Your task to perform on an android device: Show me the alarms in the clock app Image 0: 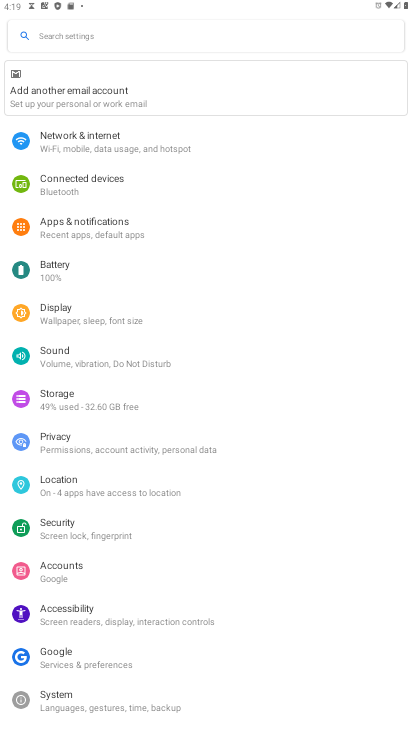
Step 0: press home button
Your task to perform on an android device: Show me the alarms in the clock app Image 1: 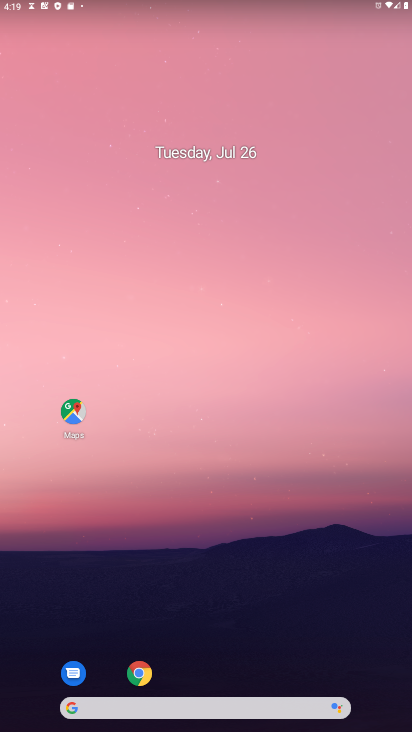
Step 1: drag from (191, 708) to (205, 146)
Your task to perform on an android device: Show me the alarms in the clock app Image 2: 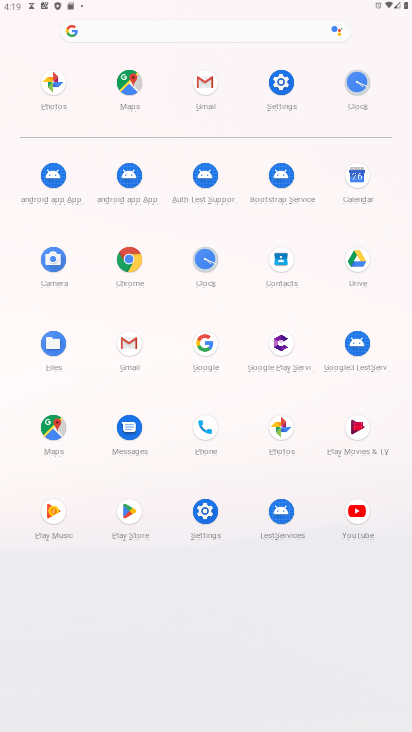
Step 2: click (356, 83)
Your task to perform on an android device: Show me the alarms in the clock app Image 3: 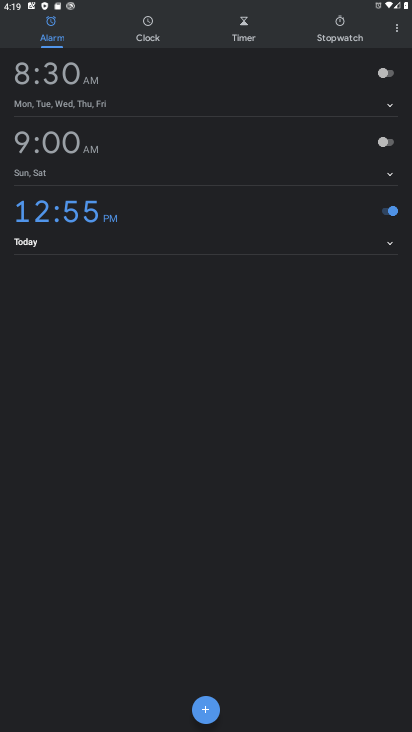
Step 3: click (207, 712)
Your task to perform on an android device: Show me the alarms in the clock app Image 4: 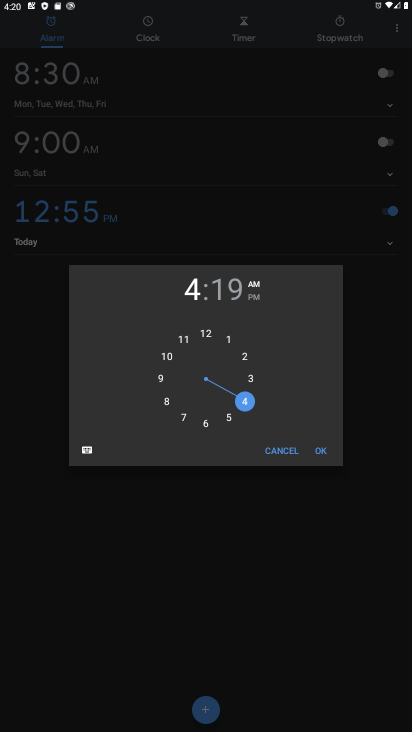
Step 4: click (162, 387)
Your task to perform on an android device: Show me the alarms in the clock app Image 5: 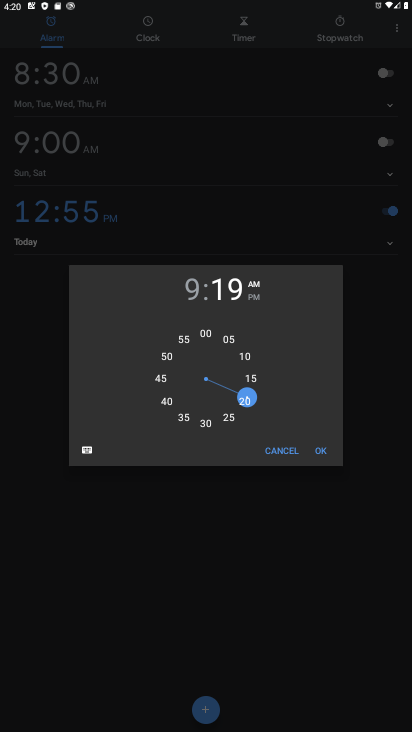
Step 5: click (204, 341)
Your task to perform on an android device: Show me the alarms in the clock app Image 6: 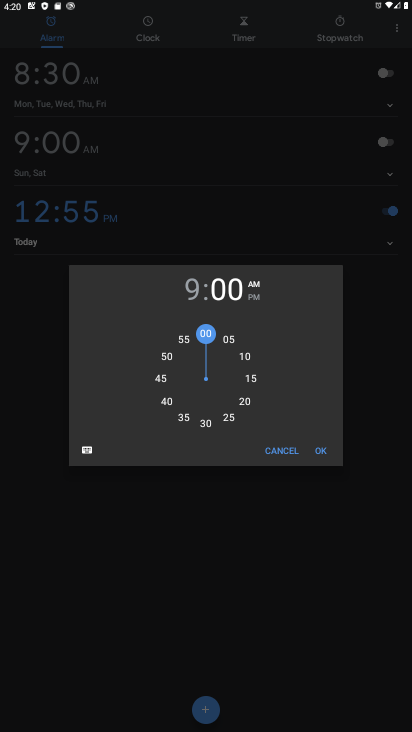
Step 6: click (254, 296)
Your task to perform on an android device: Show me the alarms in the clock app Image 7: 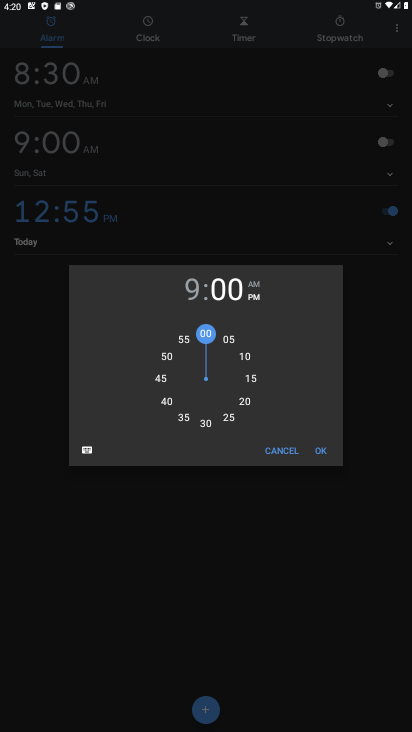
Step 7: click (322, 454)
Your task to perform on an android device: Show me the alarms in the clock app Image 8: 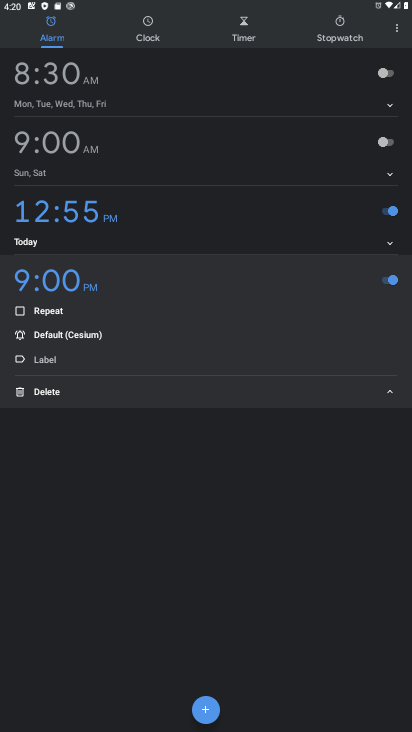
Step 8: click (392, 395)
Your task to perform on an android device: Show me the alarms in the clock app Image 9: 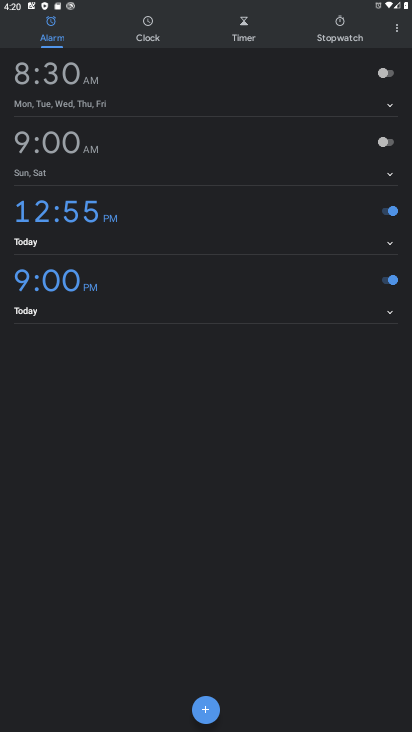
Step 9: task complete